Your task to perform on an android device: toggle notifications settings in the gmail app Image 0: 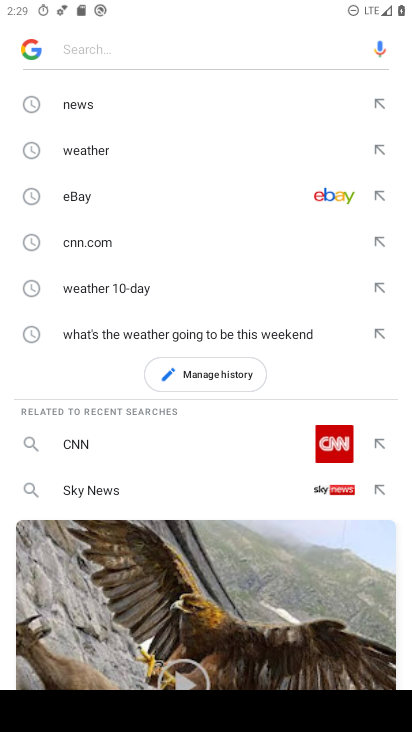
Step 0: press home button
Your task to perform on an android device: toggle notifications settings in the gmail app Image 1: 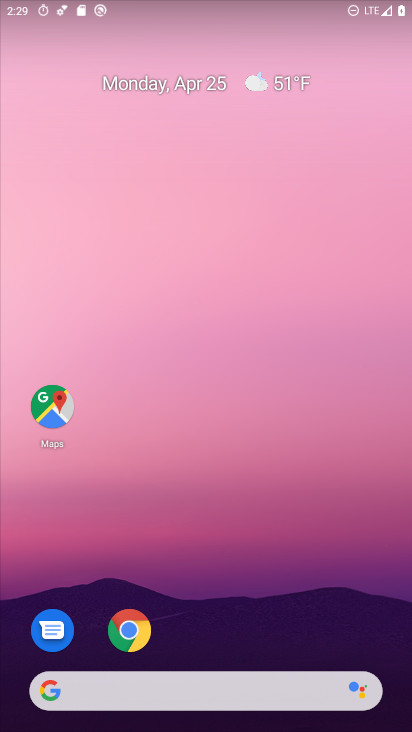
Step 1: drag from (187, 557) to (359, 148)
Your task to perform on an android device: toggle notifications settings in the gmail app Image 2: 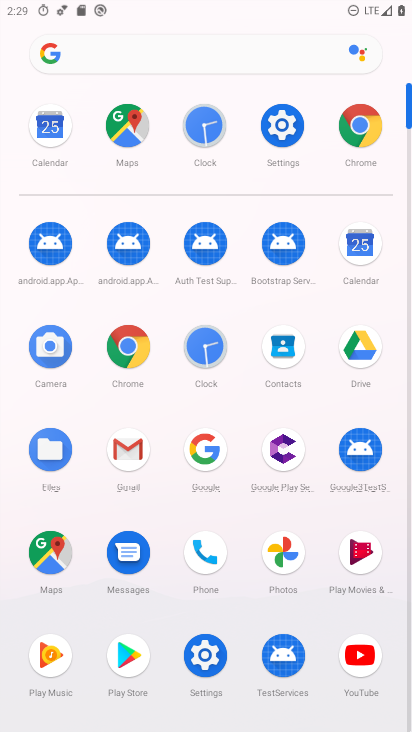
Step 2: click (118, 433)
Your task to perform on an android device: toggle notifications settings in the gmail app Image 3: 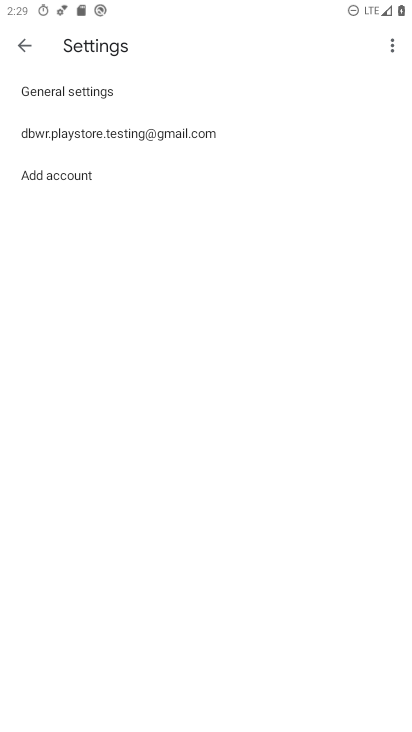
Step 3: click (153, 136)
Your task to perform on an android device: toggle notifications settings in the gmail app Image 4: 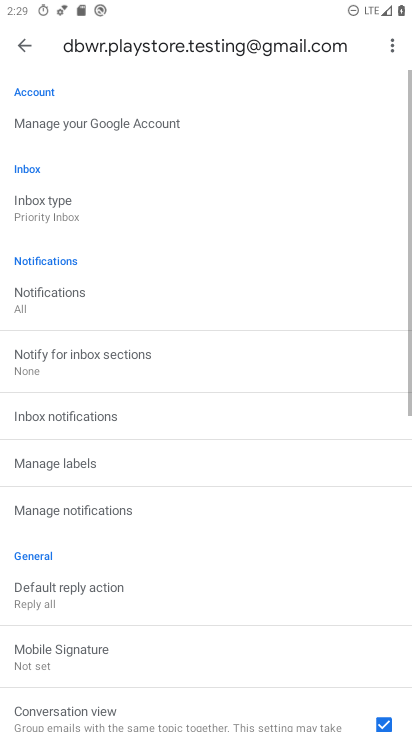
Step 4: click (63, 516)
Your task to perform on an android device: toggle notifications settings in the gmail app Image 5: 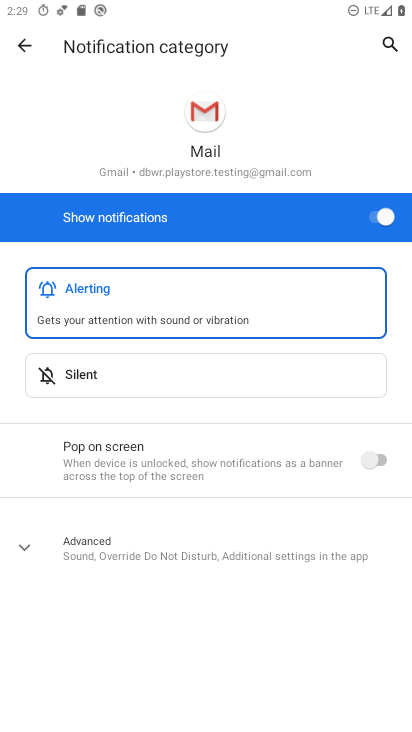
Step 5: click (374, 215)
Your task to perform on an android device: toggle notifications settings in the gmail app Image 6: 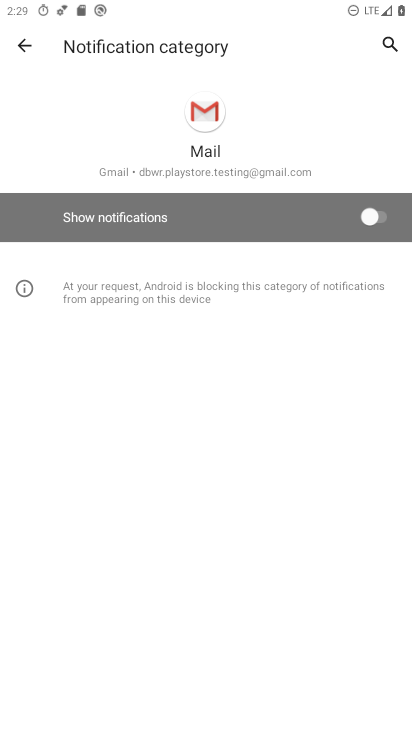
Step 6: task complete